Your task to perform on an android device: check the backup settings in the google photos Image 0: 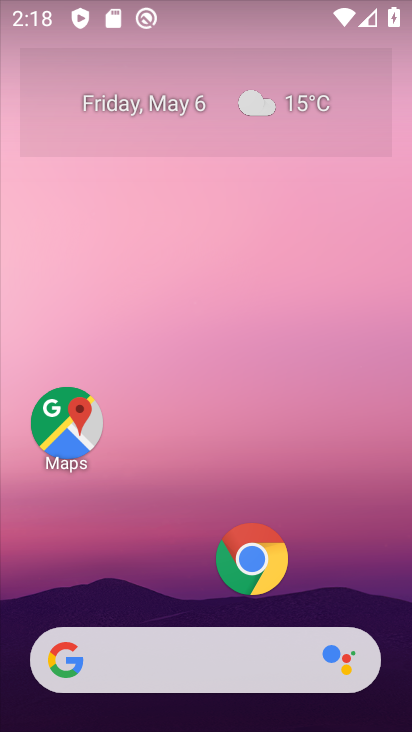
Step 0: drag from (201, 604) to (195, 62)
Your task to perform on an android device: check the backup settings in the google photos Image 1: 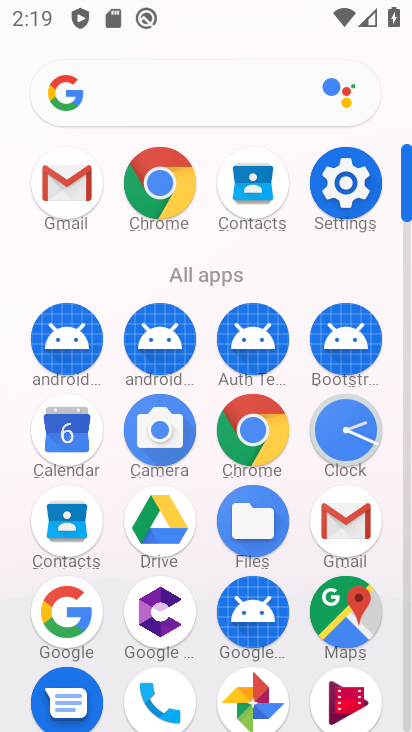
Step 1: click (250, 692)
Your task to perform on an android device: check the backup settings in the google photos Image 2: 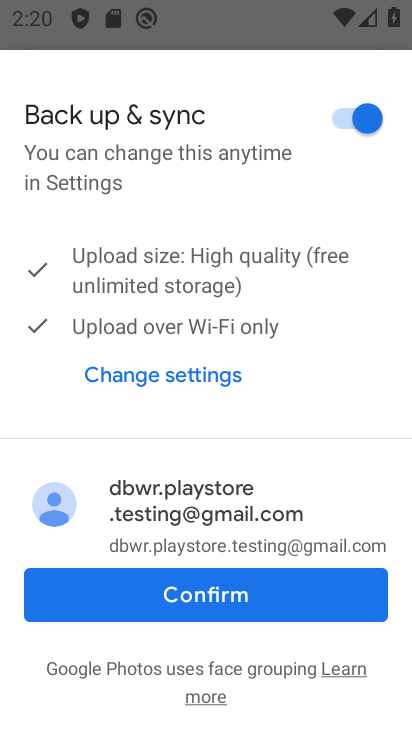
Step 2: click (214, 597)
Your task to perform on an android device: check the backup settings in the google photos Image 3: 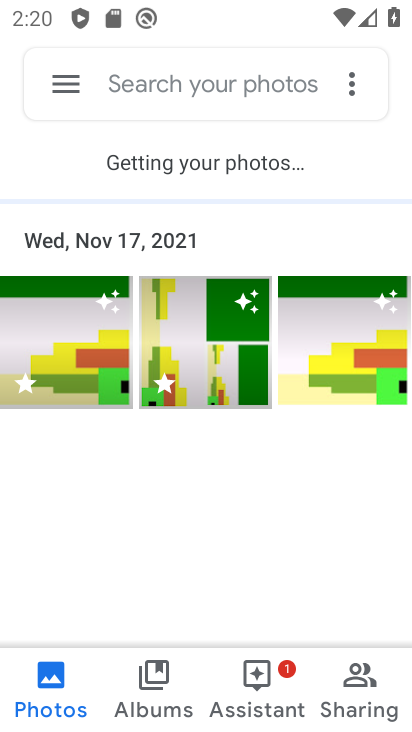
Step 3: click (55, 83)
Your task to perform on an android device: check the backup settings in the google photos Image 4: 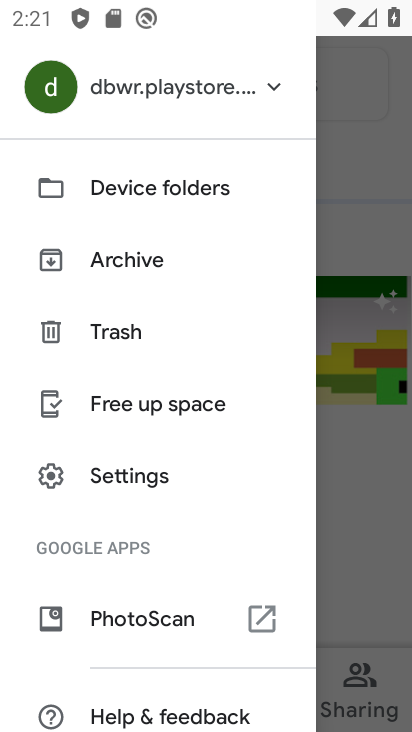
Step 4: click (117, 476)
Your task to perform on an android device: check the backup settings in the google photos Image 5: 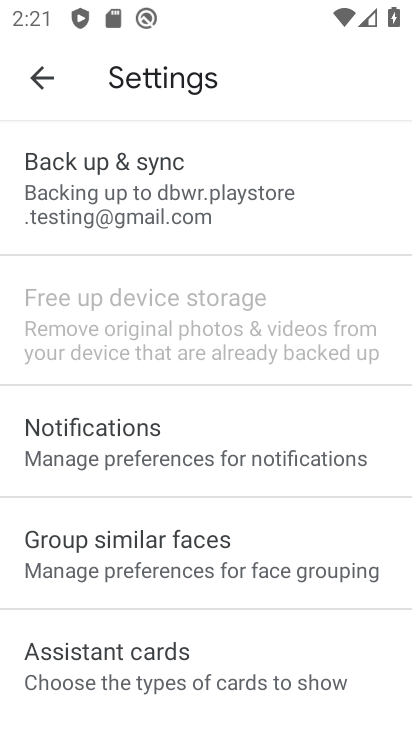
Step 5: click (125, 210)
Your task to perform on an android device: check the backup settings in the google photos Image 6: 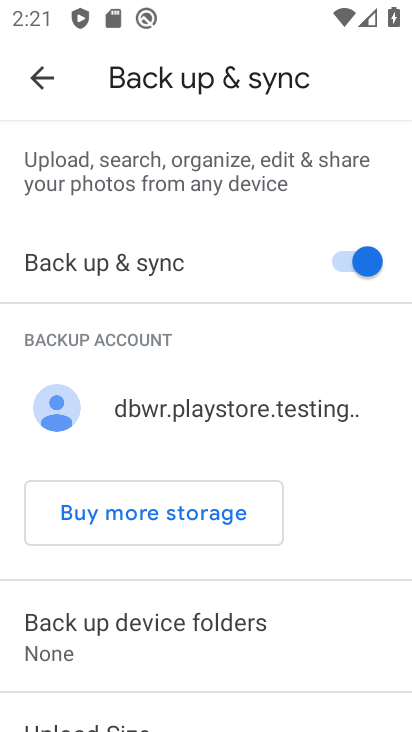
Step 6: task complete